Your task to perform on an android device: Go to Google maps Image 0: 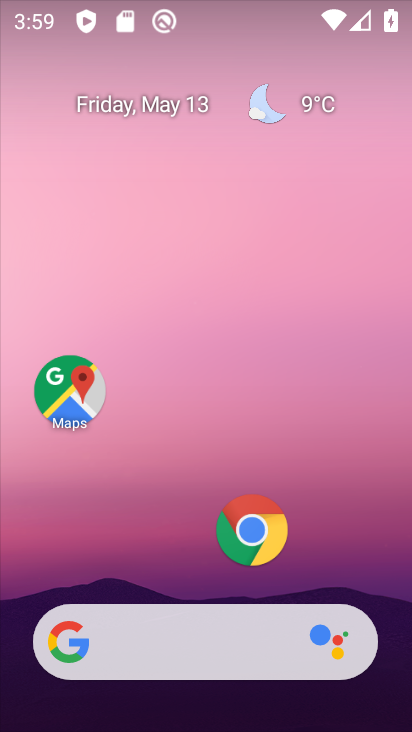
Step 0: press home button
Your task to perform on an android device: Go to Google maps Image 1: 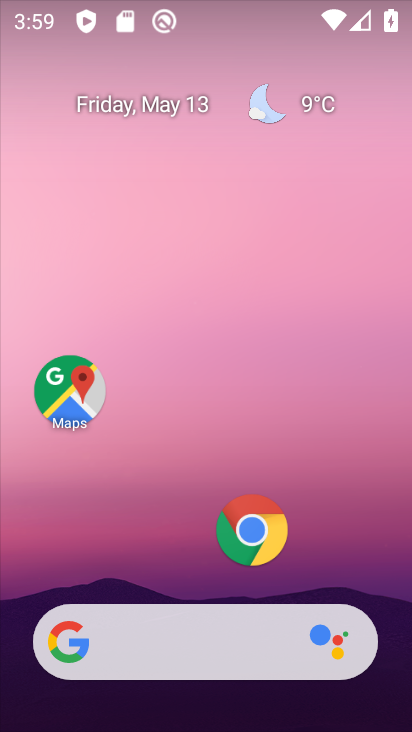
Step 1: drag from (198, 576) to (226, 2)
Your task to perform on an android device: Go to Google maps Image 2: 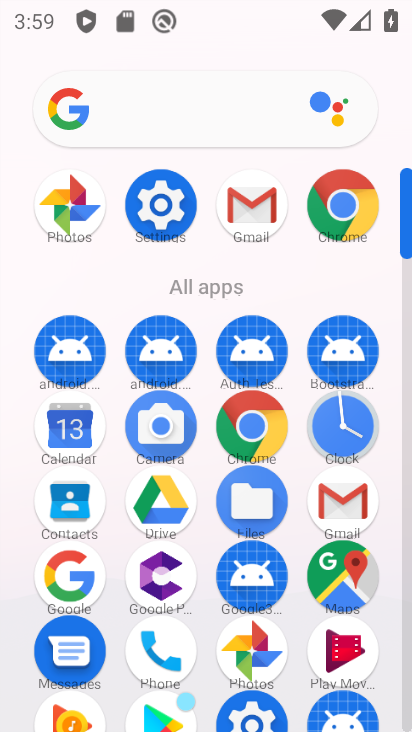
Step 2: click (346, 571)
Your task to perform on an android device: Go to Google maps Image 3: 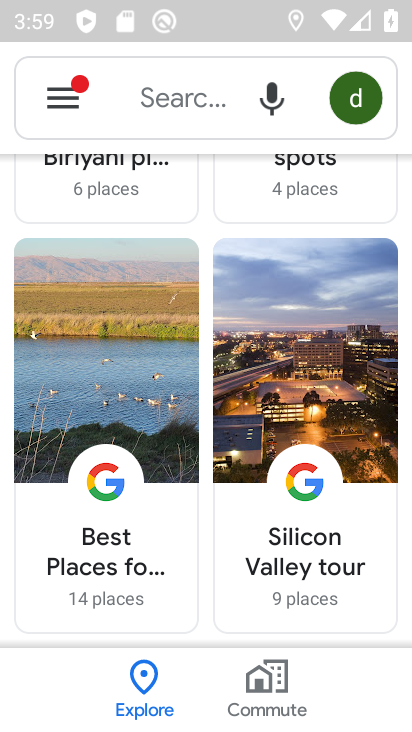
Step 3: task complete